Your task to perform on an android device: Open CNN.com Image 0: 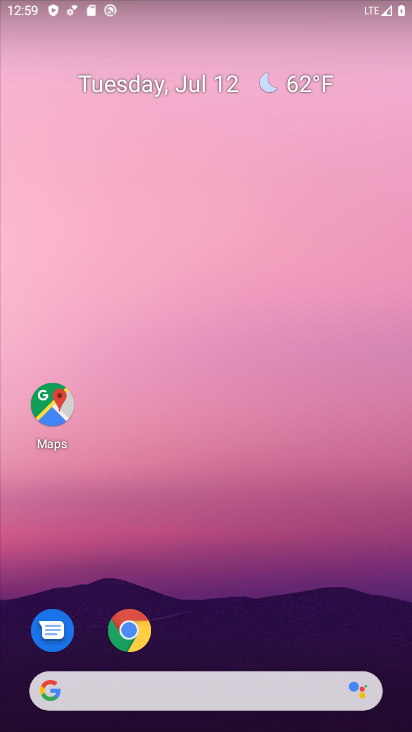
Step 0: drag from (202, 638) to (278, 74)
Your task to perform on an android device: Open CNN.com Image 1: 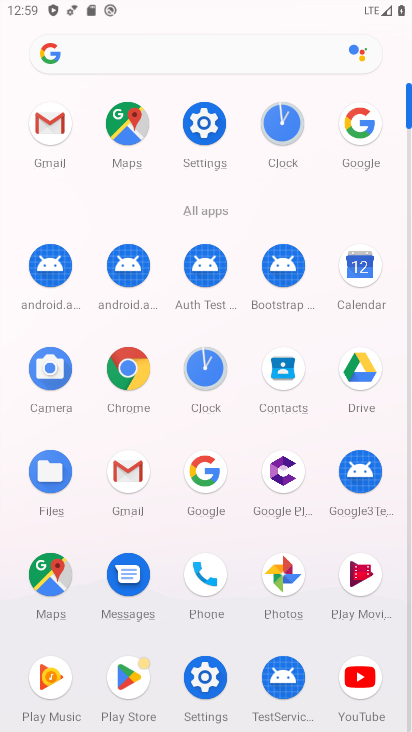
Step 1: click (363, 122)
Your task to perform on an android device: Open CNN.com Image 2: 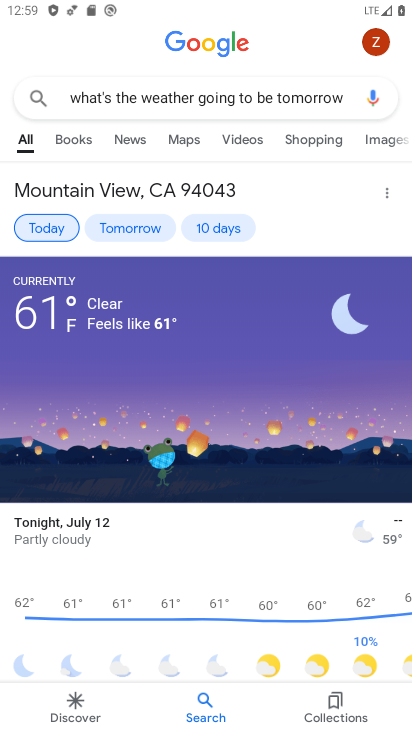
Step 2: click (317, 95)
Your task to perform on an android device: Open CNN.com Image 3: 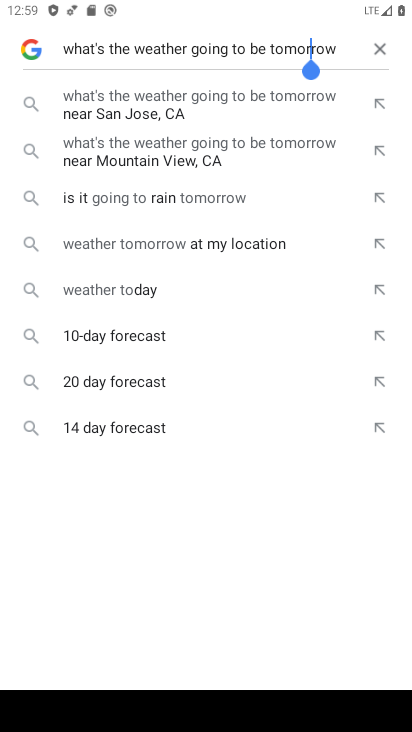
Step 3: click (377, 44)
Your task to perform on an android device: Open CNN.com Image 4: 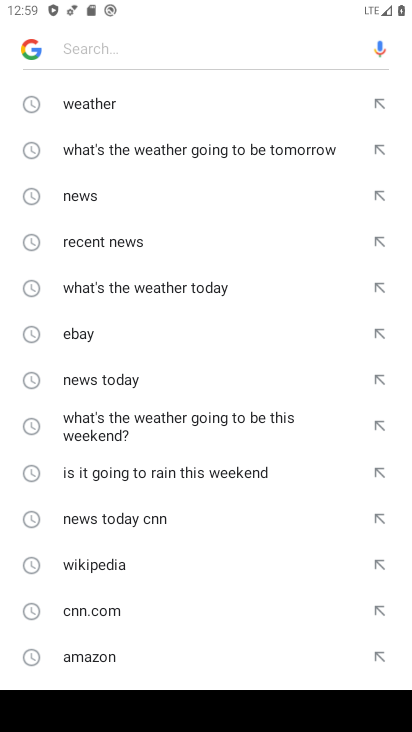
Step 4: type "cnn.com"
Your task to perform on an android device: Open CNN.com Image 5: 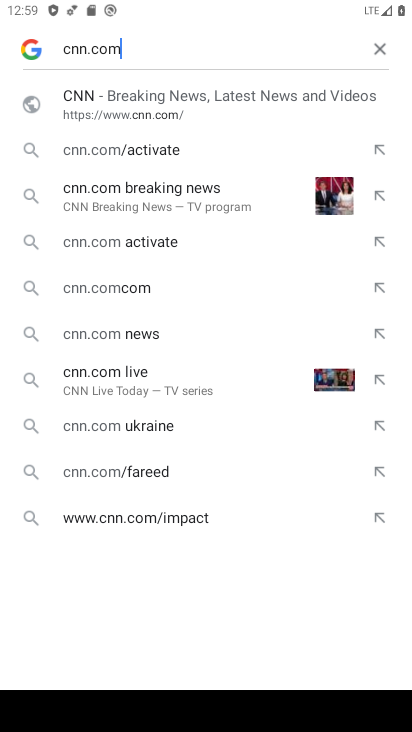
Step 5: click (168, 108)
Your task to perform on an android device: Open CNN.com Image 6: 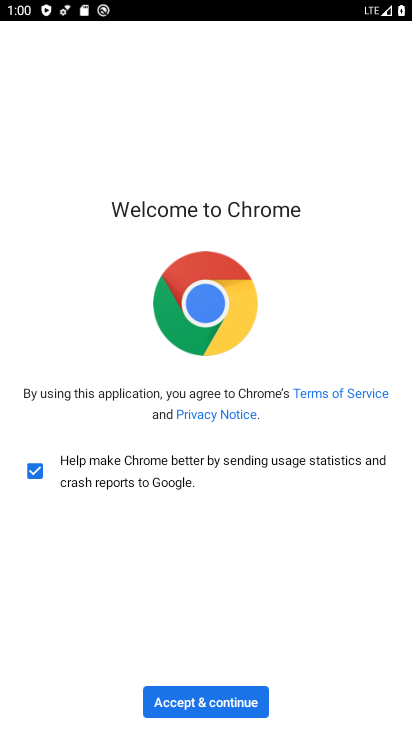
Step 6: click (200, 696)
Your task to perform on an android device: Open CNN.com Image 7: 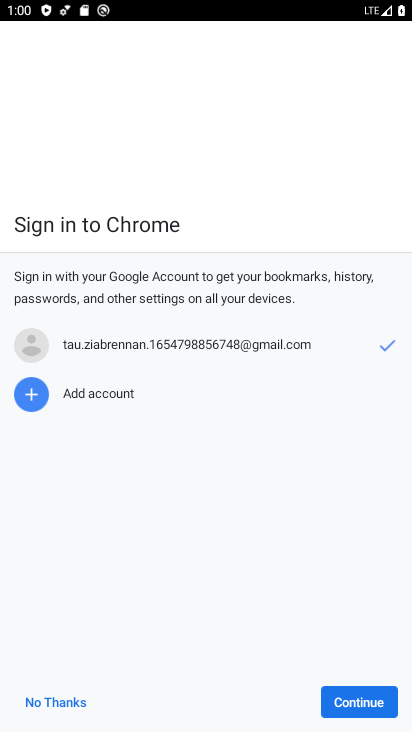
Step 7: click (362, 698)
Your task to perform on an android device: Open CNN.com Image 8: 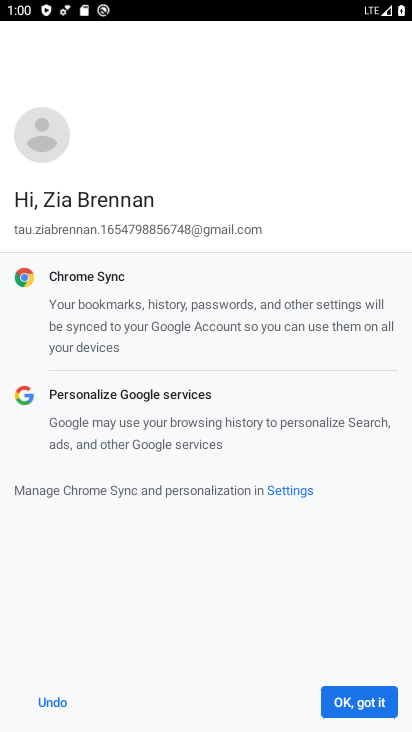
Step 8: click (362, 698)
Your task to perform on an android device: Open CNN.com Image 9: 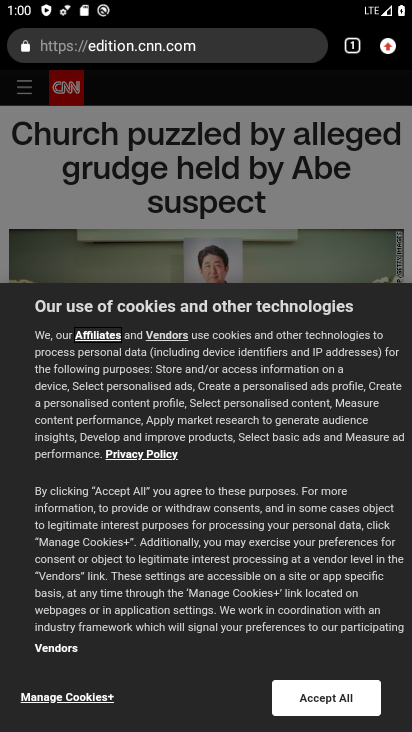
Step 9: task complete